Your task to perform on an android device: install app "Life360: Find Family & Friends" Image 0: 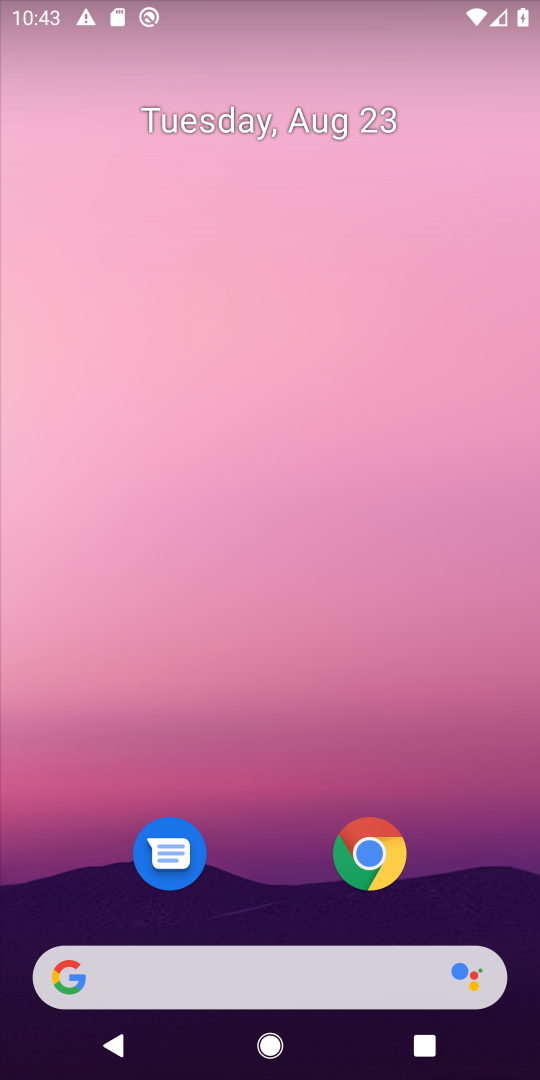
Step 0: drag from (264, 867) to (330, 169)
Your task to perform on an android device: install app "Life360: Find Family & Friends" Image 1: 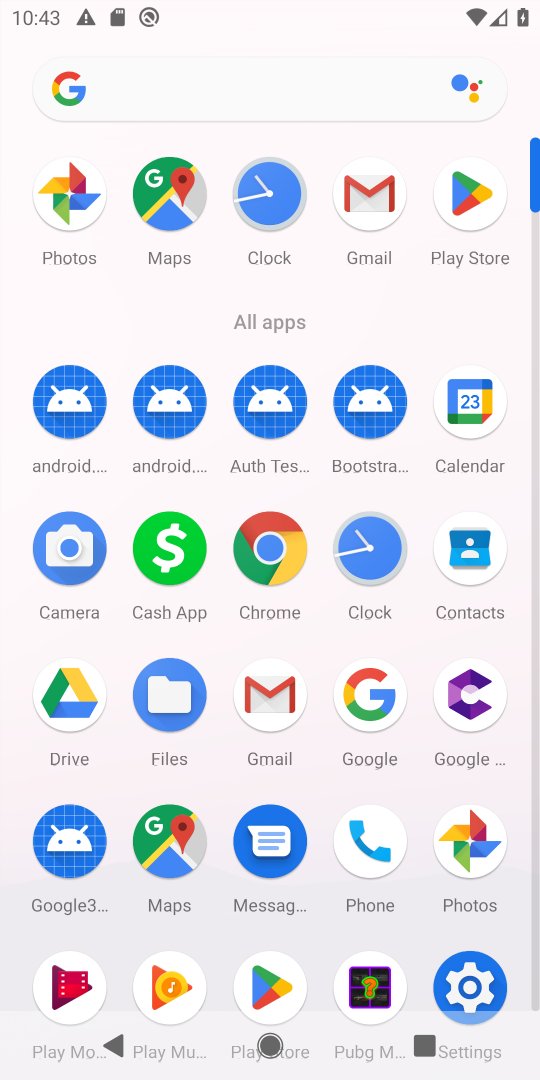
Step 1: click (438, 213)
Your task to perform on an android device: install app "Life360: Find Family & Friends" Image 2: 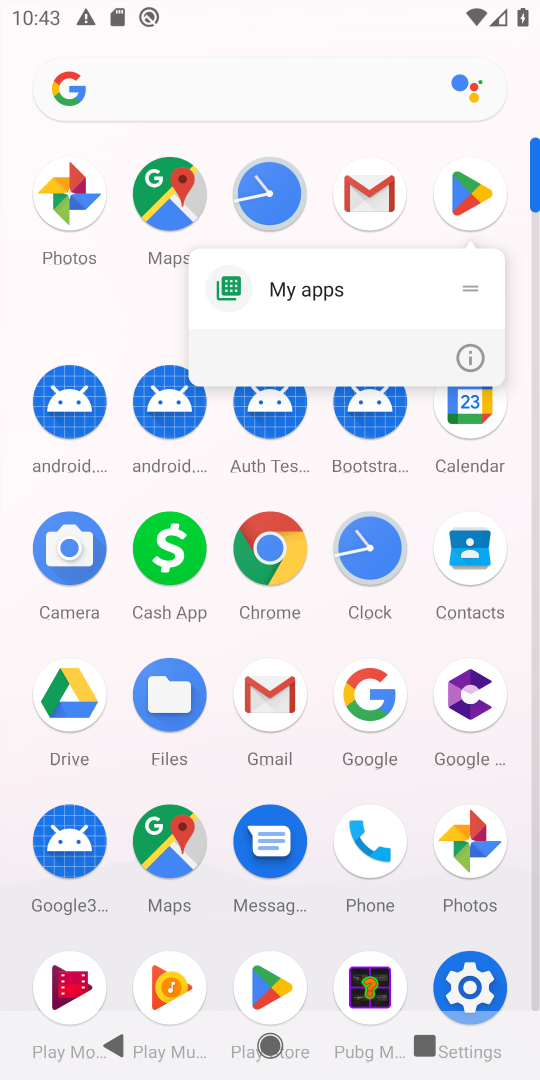
Step 2: click (469, 187)
Your task to perform on an android device: install app "Life360: Find Family & Friends" Image 3: 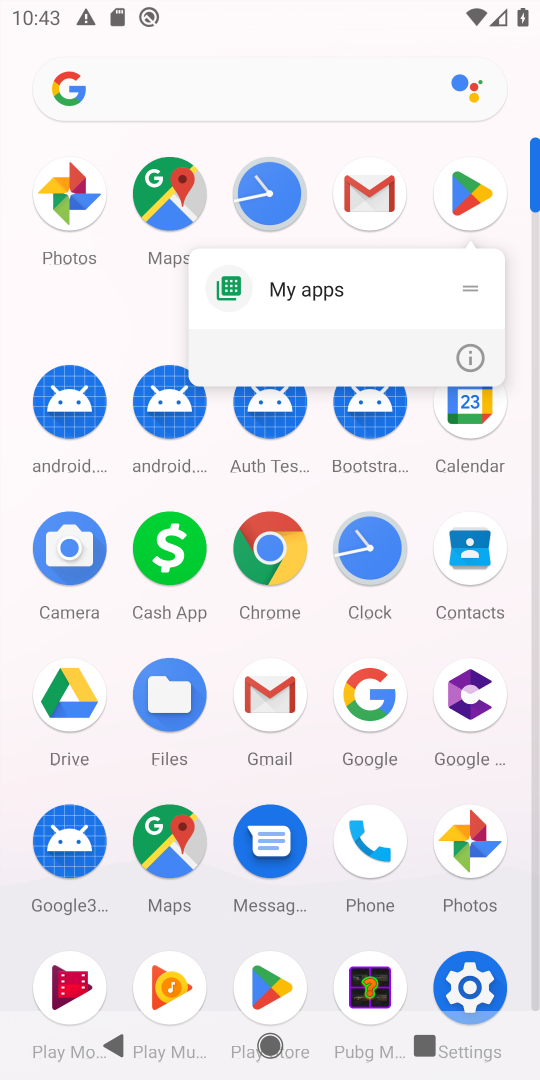
Step 3: click (469, 185)
Your task to perform on an android device: install app "Life360: Find Family & Friends" Image 4: 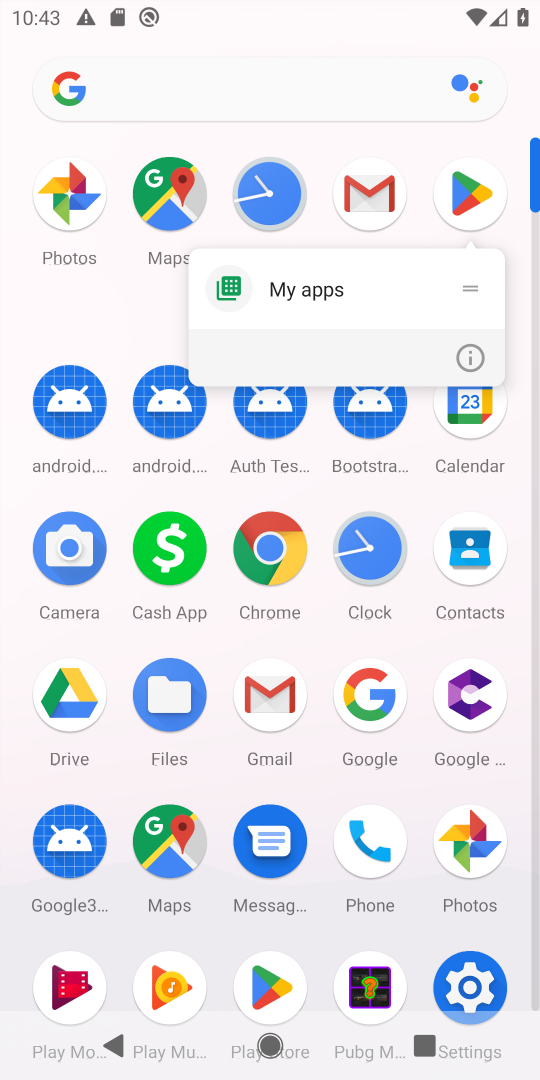
Step 4: click (469, 185)
Your task to perform on an android device: install app "Life360: Find Family & Friends" Image 5: 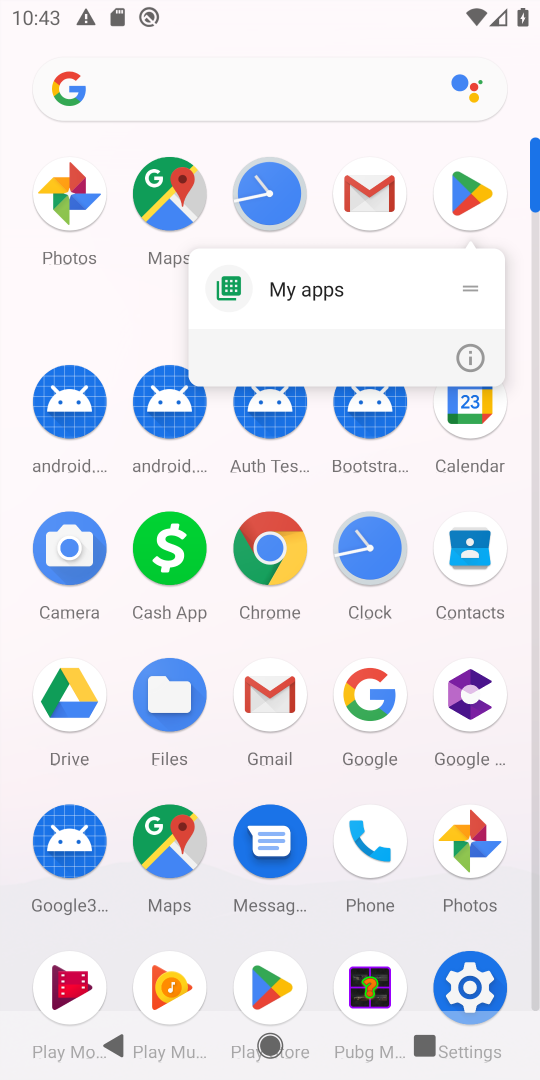
Step 5: click (469, 185)
Your task to perform on an android device: install app "Life360: Find Family & Friends" Image 6: 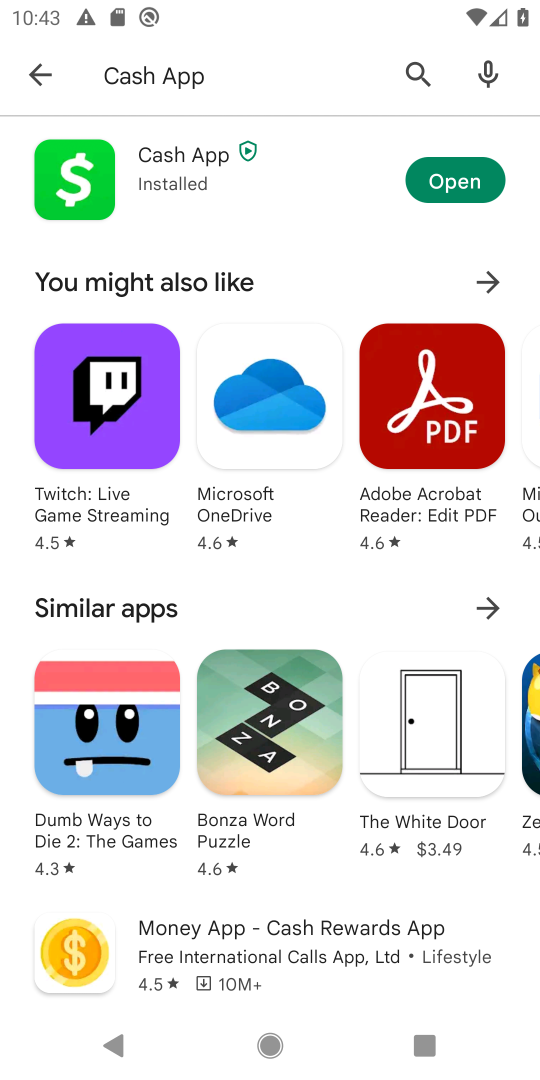
Step 6: press back button
Your task to perform on an android device: install app "Life360: Find Family & Friends" Image 7: 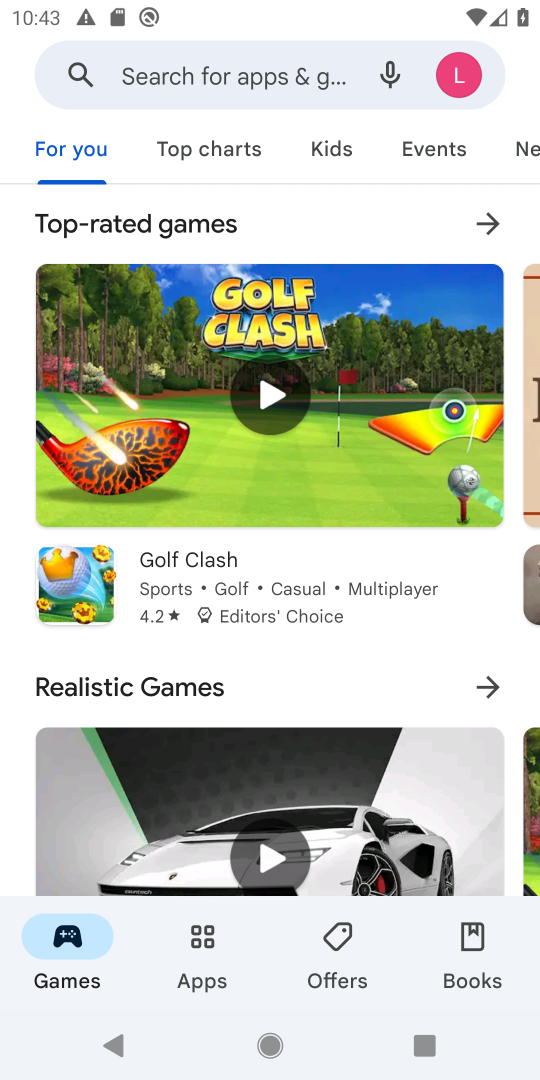
Step 7: click (235, 89)
Your task to perform on an android device: install app "Life360: Find Family & Friends" Image 8: 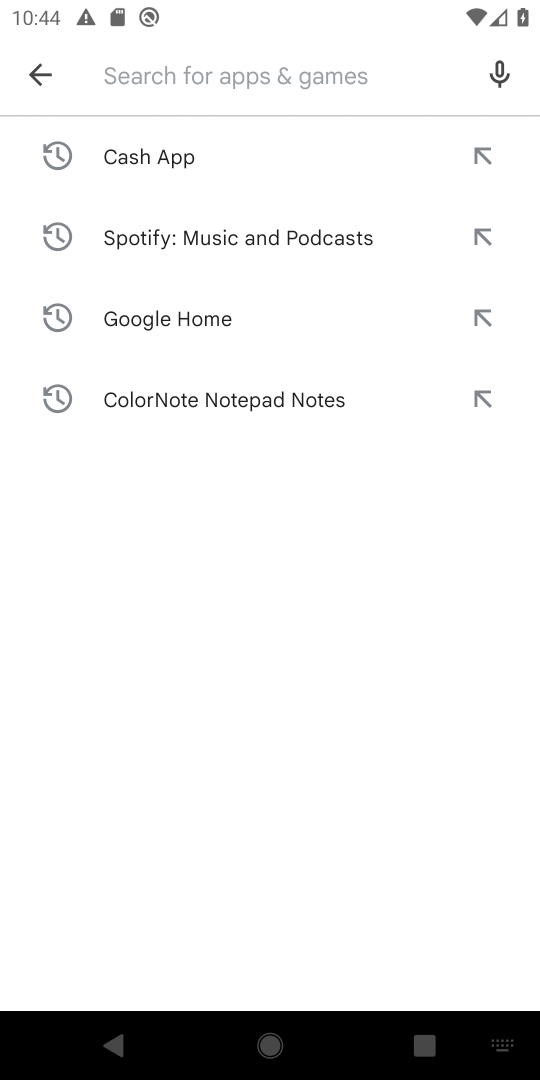
Step 8: drag from (329, 1074) to (519, 783)
Your task to perform on an android device: install app "Life360: Find Family & Friends" Image 9: 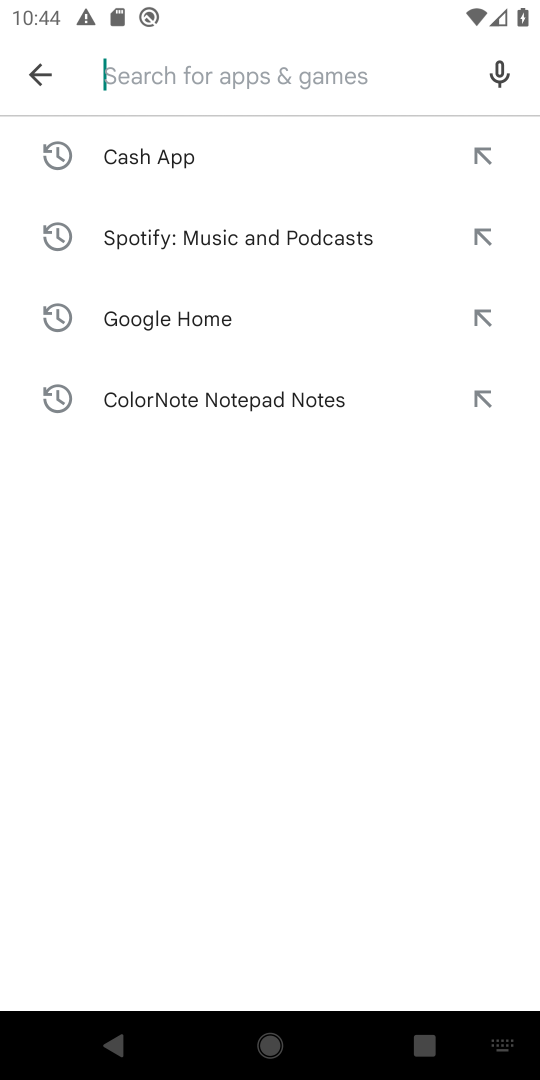
Step 9: type "Life360: Find Family & Friends""
Your task to perform on an android device: install app "Life360: Find Family & Friends" Image 10: 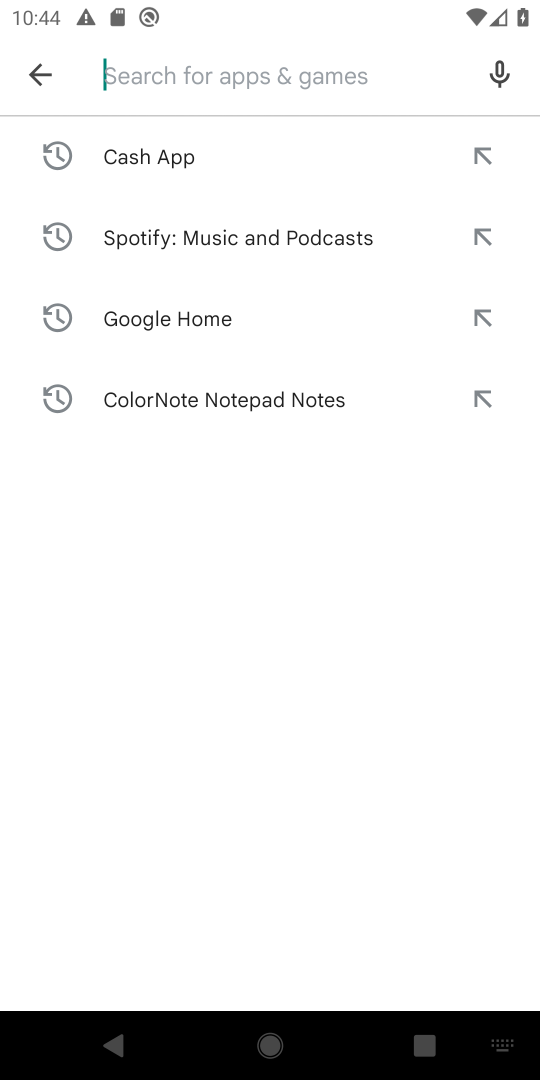
Step 10: press enter
Your task to perform on an android device: install app "Life360: Find Family & Friends" Image 11: 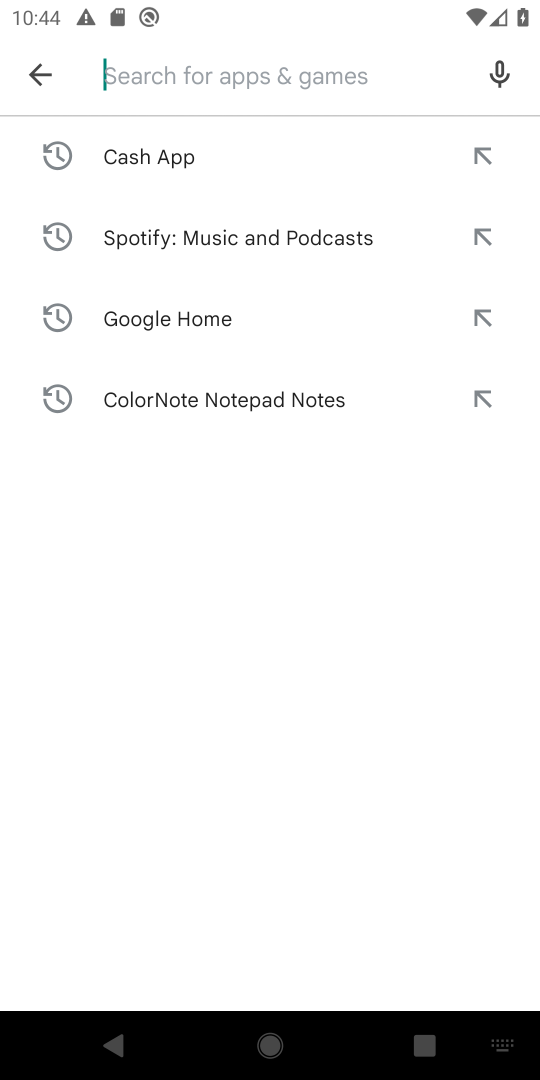
Step 11: type "Life360: Find Family & Friends"
Your task to perform on an android device: install app "Life360: Find Family & Friends" Image 12: 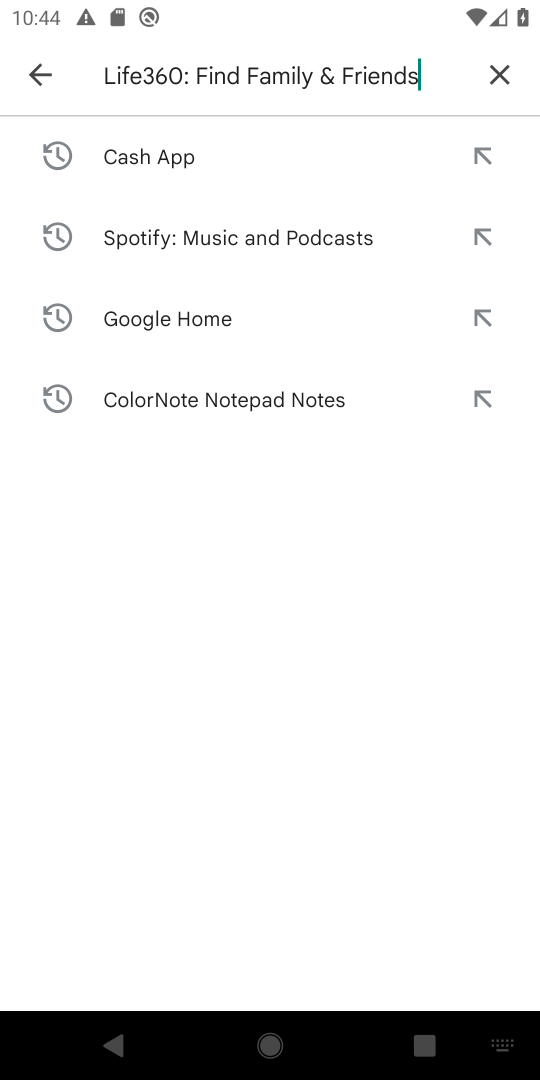
Step 12: press enter
Your task to perform on an android device: install app "Life360: Find Family & Friends" Image 13: 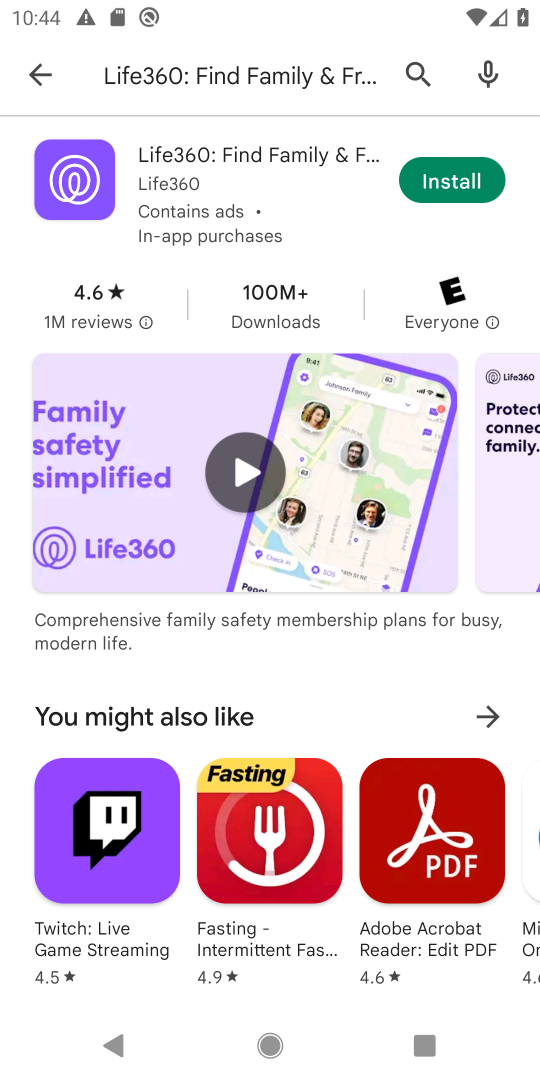
Step 13: click (478, 170)
Your task to perform on an android device: install app "Life360: Find Family & Friends" Image 14: 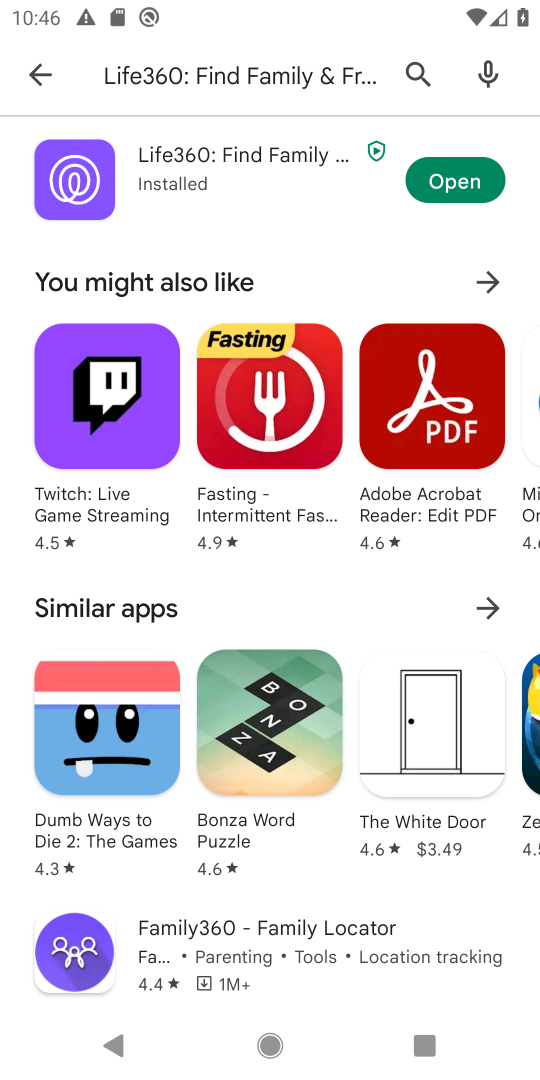
Step 14: task complete